Your task to perform on an android device: Open Yahoo.com Image 0: 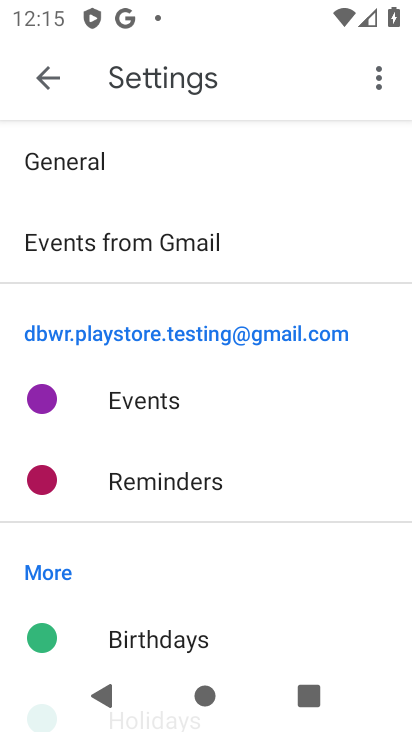
Step 0: press back button
Your task to perform on an android device: Open Yahoo.com Image 1: 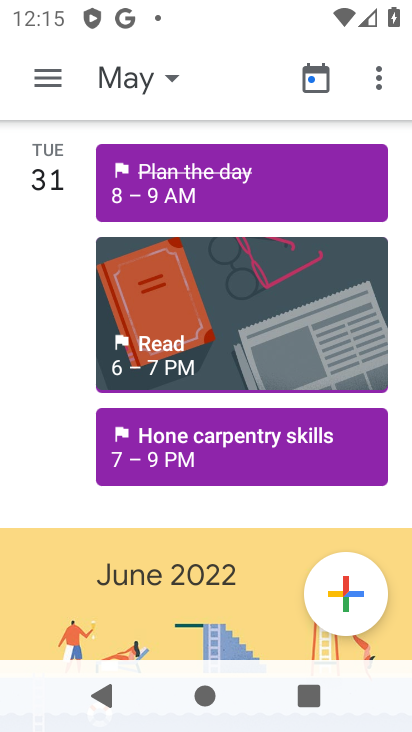
Step 1: press back button
Your task to perform on an android device: Open Yahoo.com Image 2: 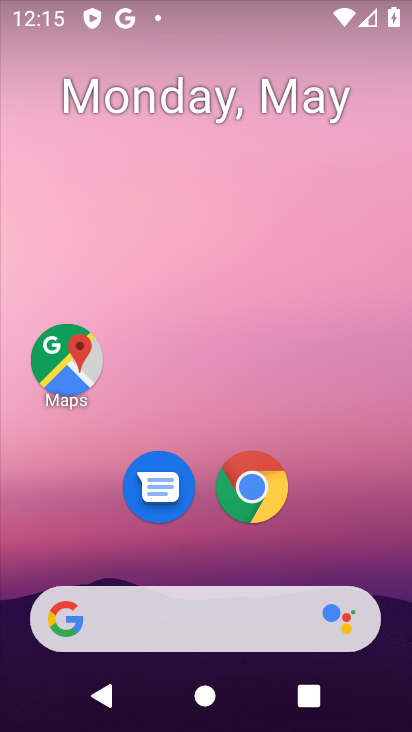
Step 2: click (255, 486)
Your task to perform on an android device: Open Yahoo.com Image 3: 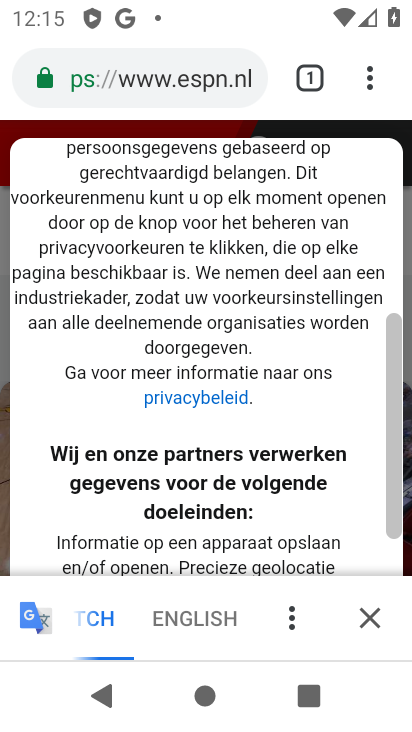
Step 3: click (238, 76)
Your task to perform on an android device: Open Yahoo.com Image 4: 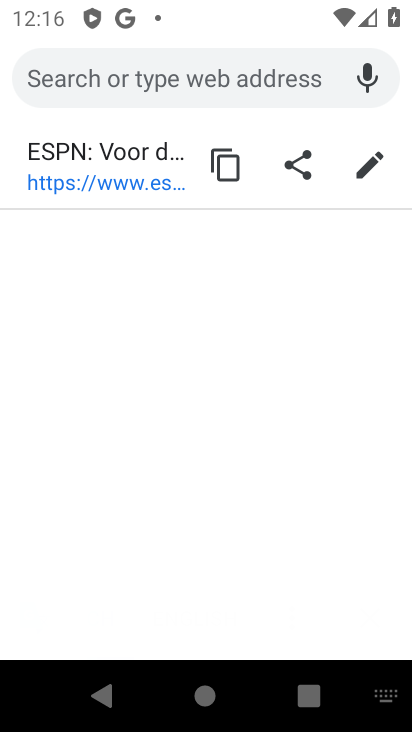
Step 4: type "Yahoo.com"
Your task to perform on an android device: Open Yahoo.com Image 5: 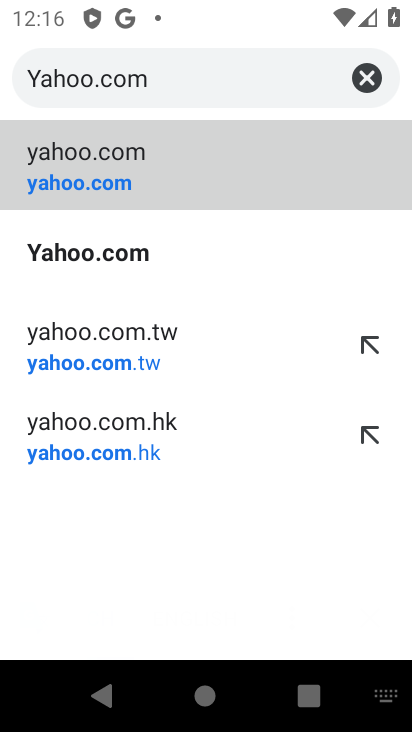
Step 5: click (104, 250)
Your task to perform on an android device: Open Yahoo.com Image 6: 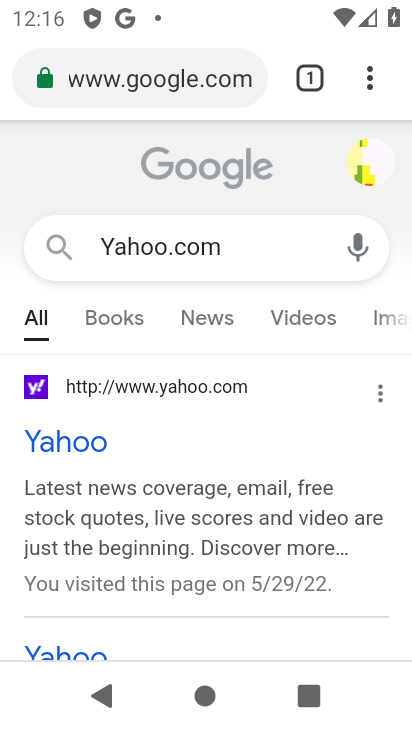
Step 6: click (135, 398)
Your task to perform on an android device: Open Yahoo.com Image 7: 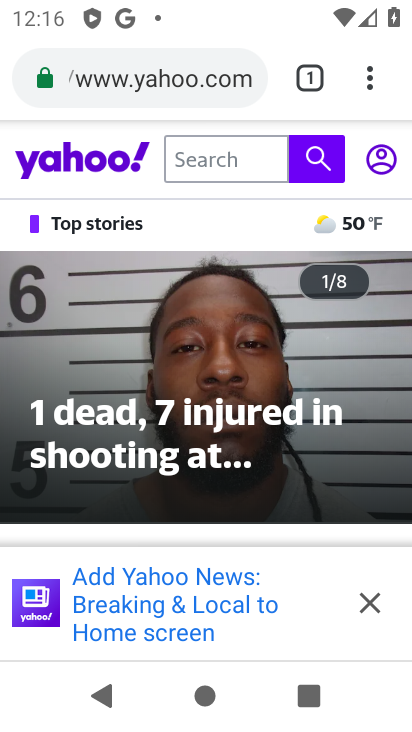
Step 7: task complete